Your task to perform on an android device: star an email in the gmail app Image 0: 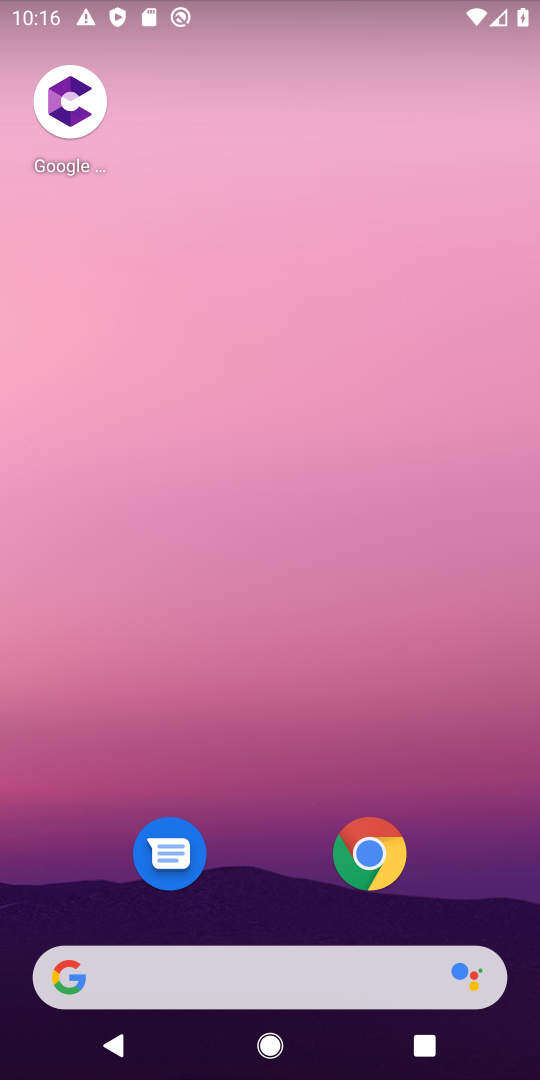
Step 0: drag from (273, 831) to (253, 9)
Your task to perform on an android device: star an email in the gmail app Image 1: 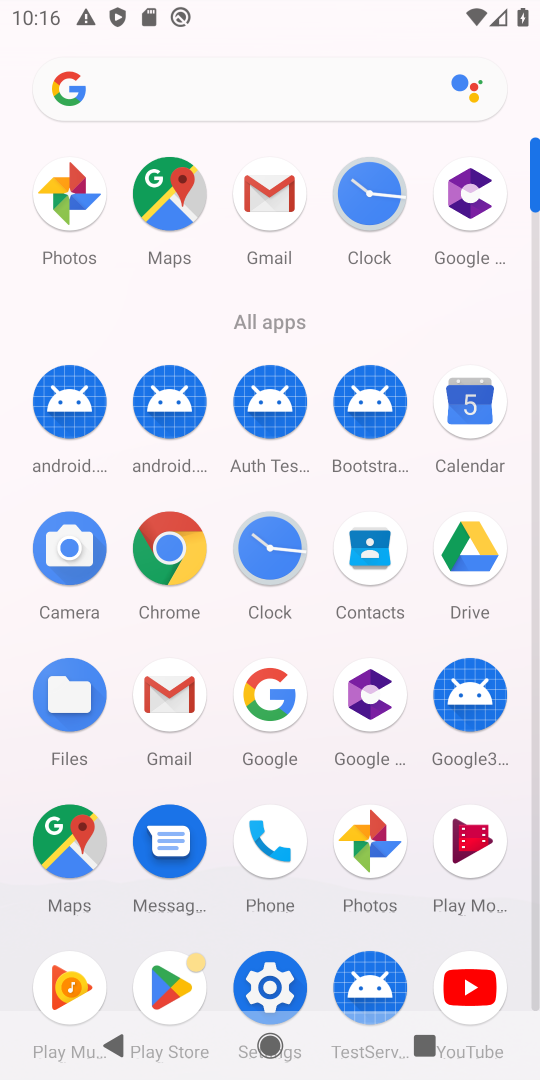
Step 1: click (159, 681)
Your task to perform on an android device: star an email in the gmail app Image 2: 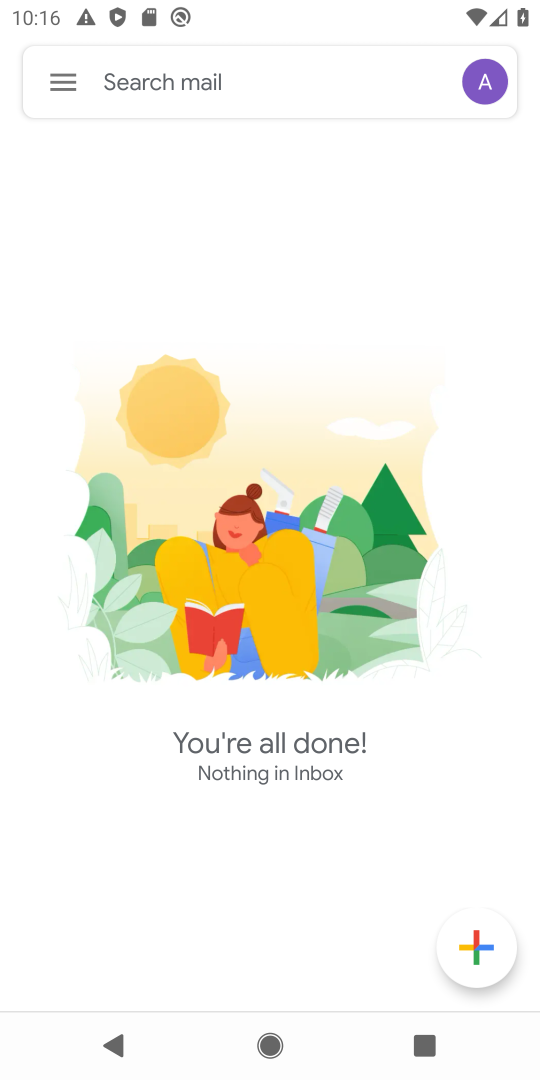
Step 2: click (62, 87)
Your task to perform on an android device: star an email in the gmail app Image 3: 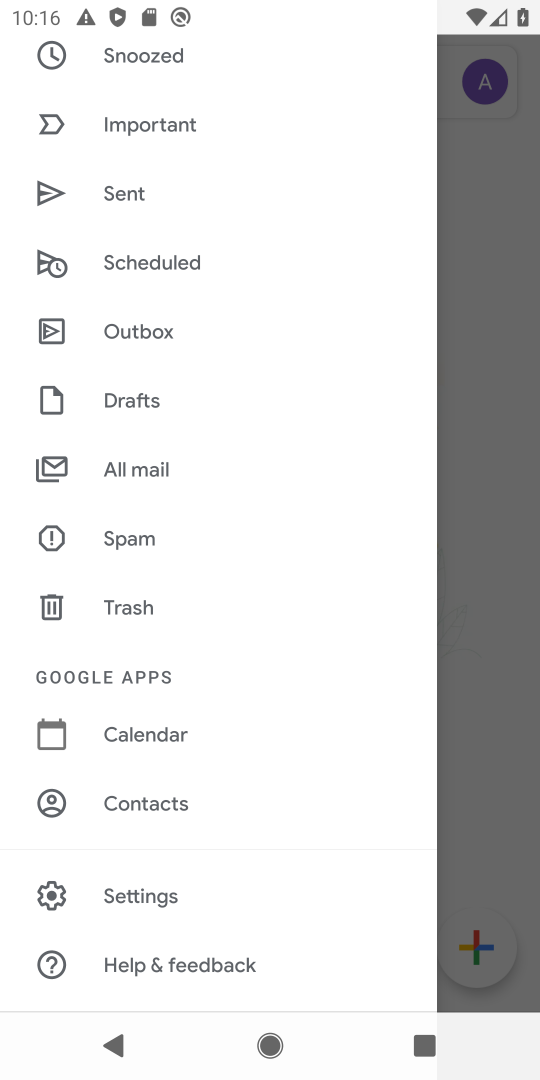
Step 3: click (84, 486)
Your task to perform on an android device: star an email in the gmail app Image 4: 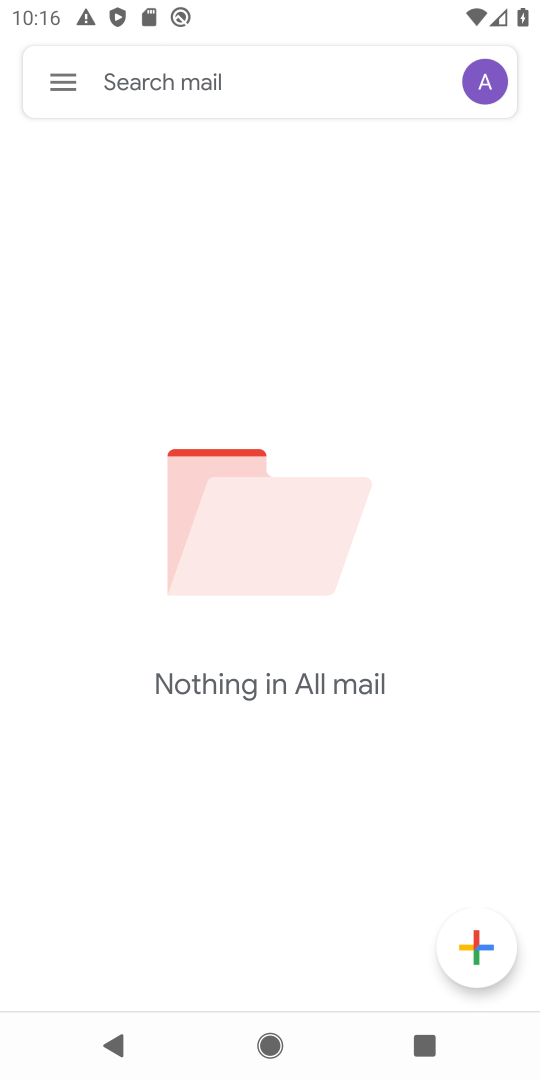
Step 4: task complete